Your task to perform on an android device: Go to Yahoo.com Image 0: 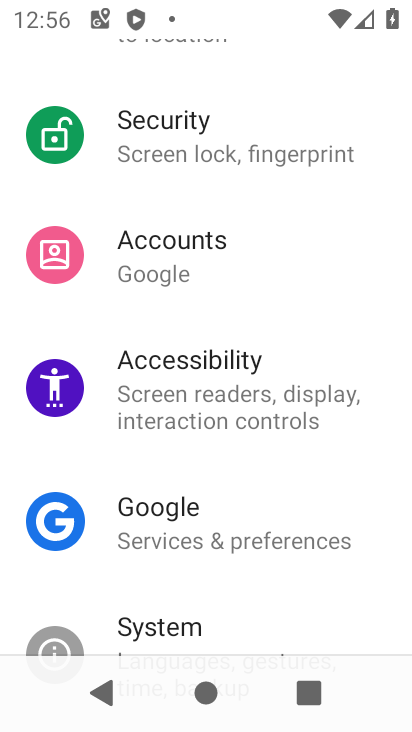
Step 0: press home button
Your task to perform on an android device: Go to Yahoo.com Image 1: 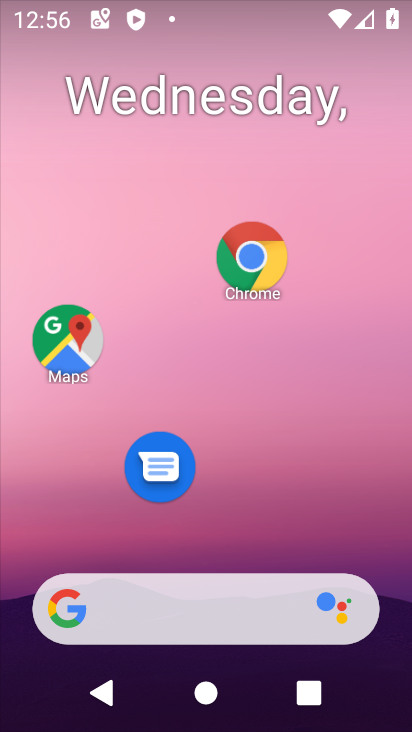
Step 1: drag from (274, 519) to (174, 223)
Your task to perform on an android device: Go to Yahoo.com Image 2: 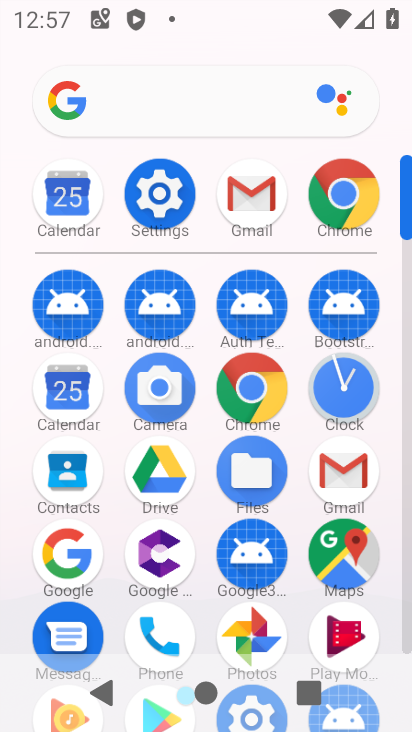
Step 2: click (274, 389)
Your task to perform on an android device: Go to Yahoo.com Image 3: 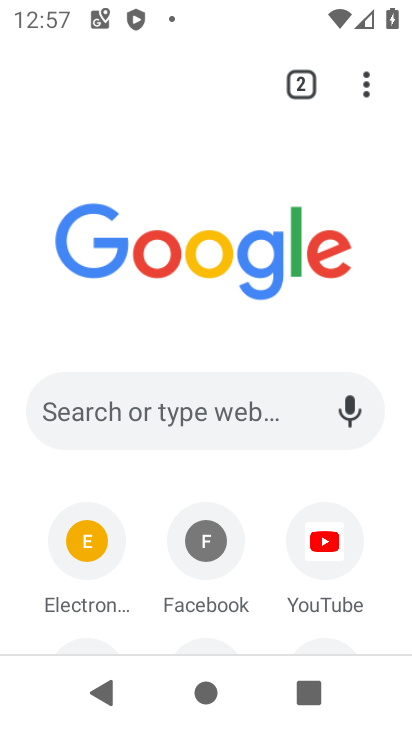
Step 3: drag from (247, 600) to (226, 317)
Your task to perform on an android device: Go to Yahoo.com Image 4: 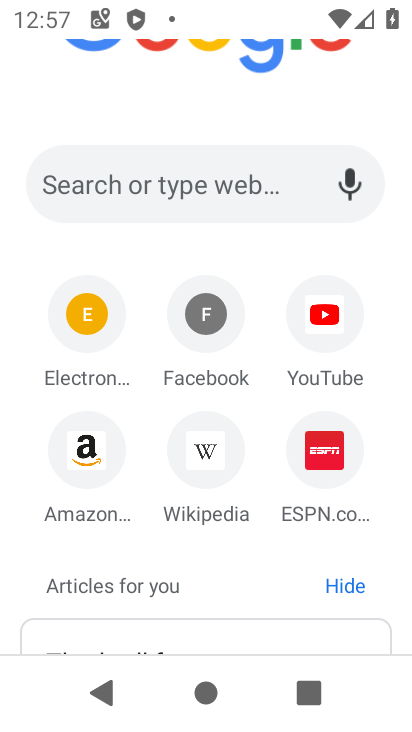
Step 4: click (198, 182)
Your task to perform on an android device: Go to Yahoo.com Image 5: 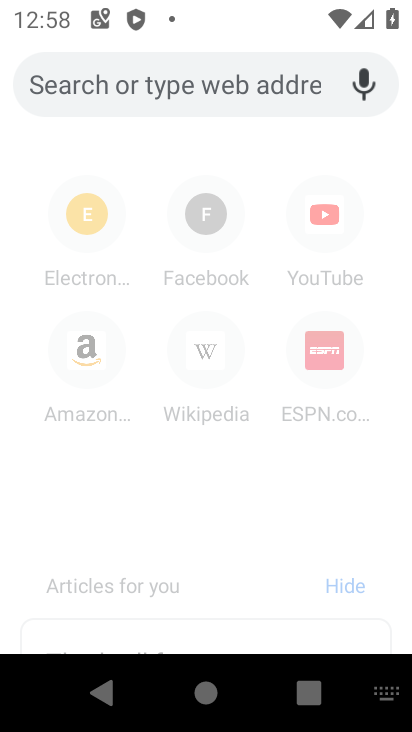
Step 5: type " Yahoo.com"
Your task to perform on an android device: Go to Yahoo.com Image 6: 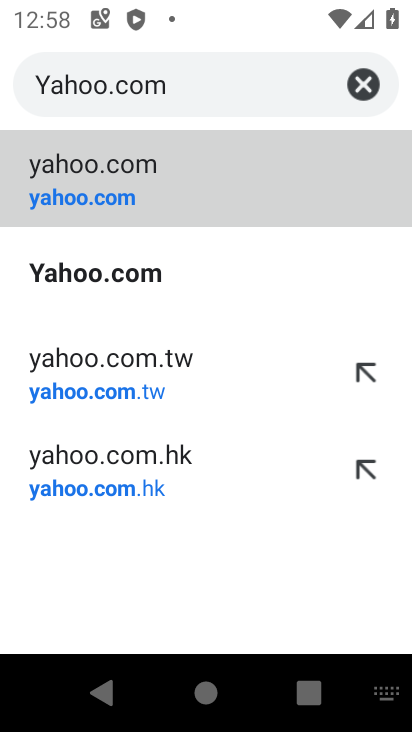
Step 6: click (81, 182)
Your task to perform on an android device: Go to Yahoo.com Image 7: 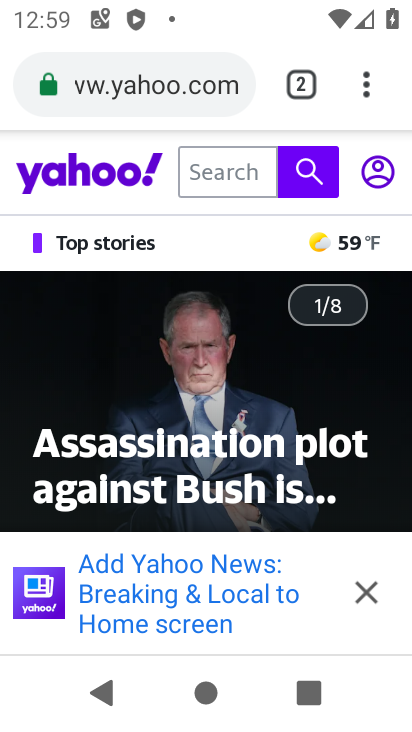
Step 7: task complete